Your task to perform on an android device: Open wifi settings Image 0: 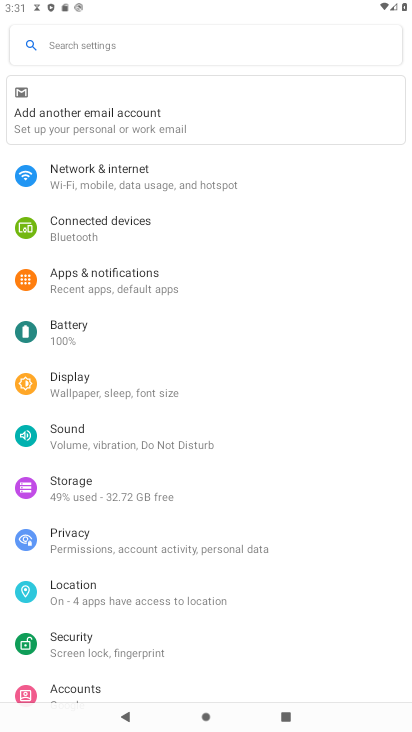
Step 0: press home button
Your task to perform on an android device: Open wifi settings Image 1: 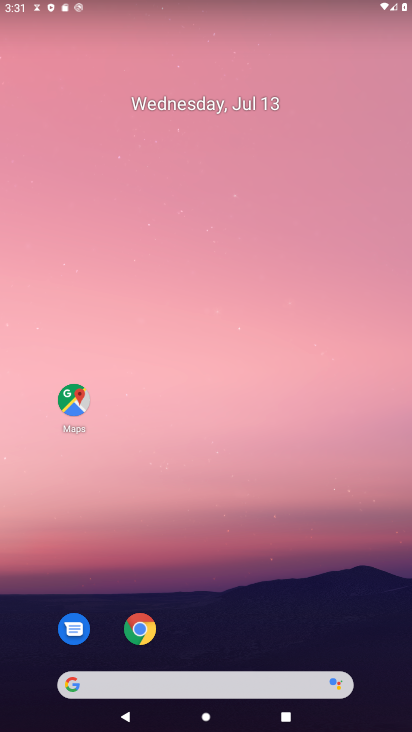
Step 1: drag from (265, 481) to (244, 23)
Your task to perform on an android device: Open wifi settings Image 2: 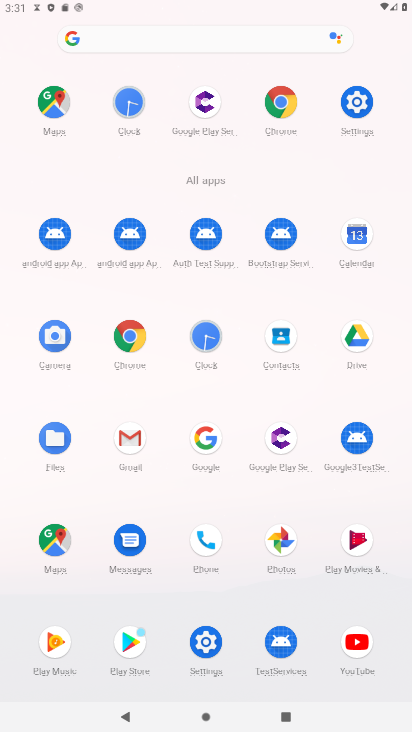
Step 2: click (358, 92)
Your task to perform on an android device: Open wifi settings Image 3: 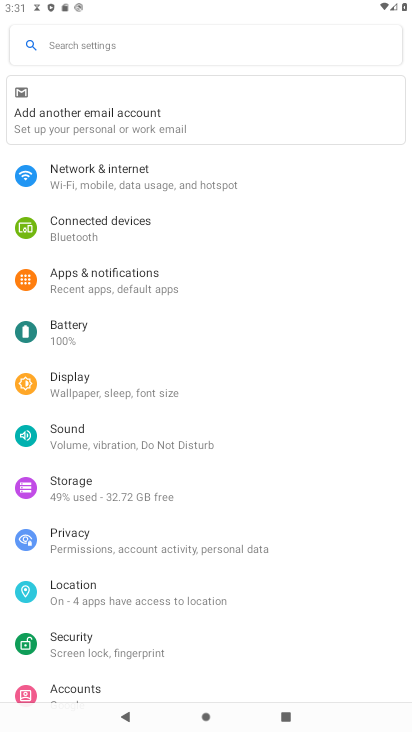
Step 3: click (99, 166)
Your task to perform on an android device: Open wifi settings Image 4: 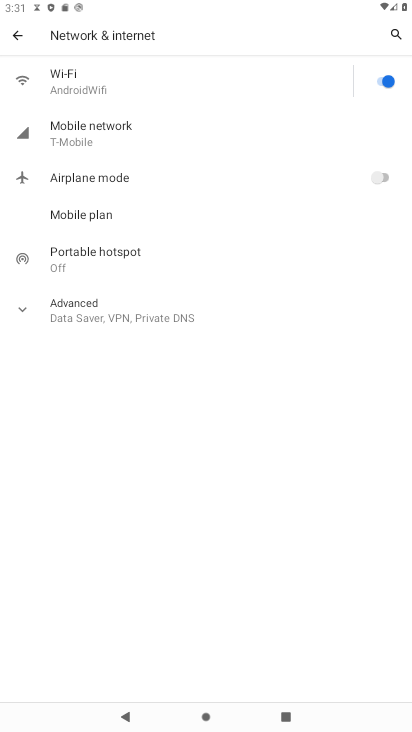
Step 4: click (96, 74)
Your task to perform on an android device: Open wifi settings Image 5: 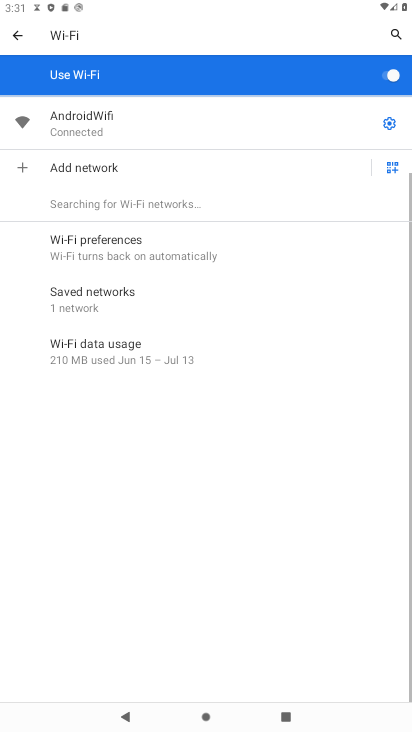
Step 5: task complete